Your task to perform on an android device: Go to CNN.com Image 0: 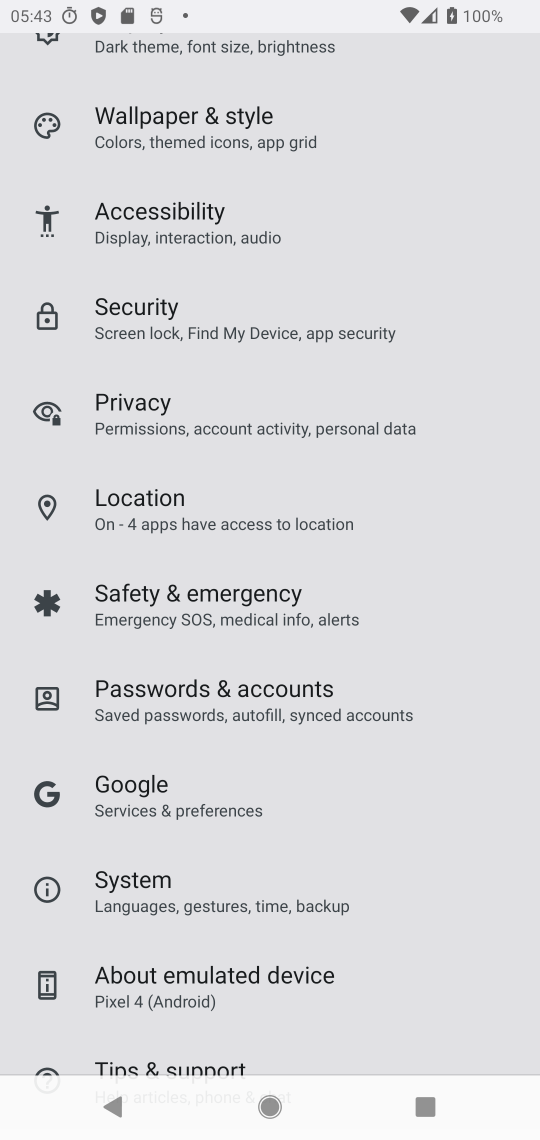
Step 0: press home button
Your task to perform on an android device: Go to CNN.com Image 1: 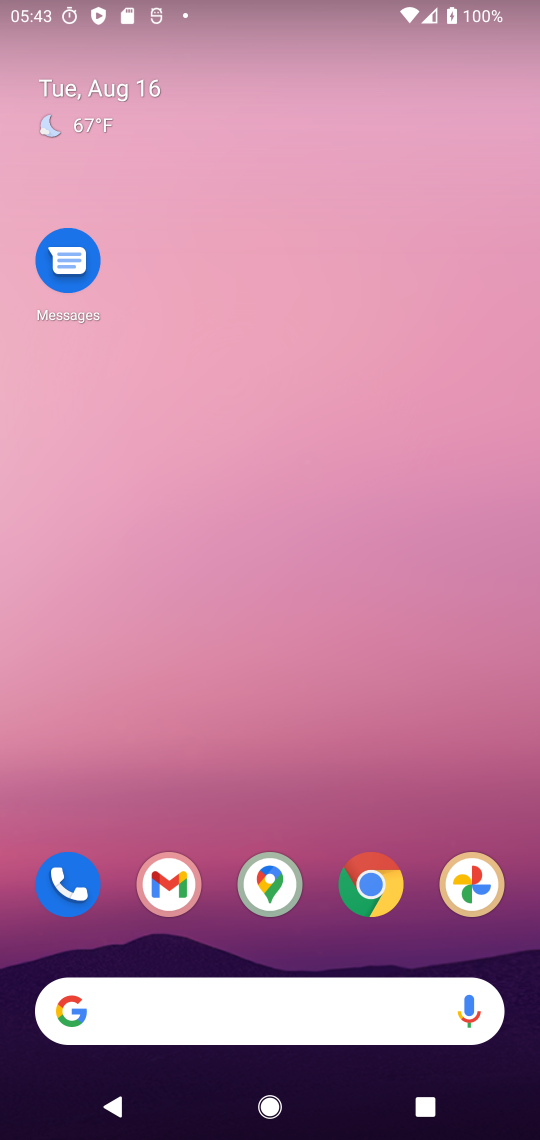
Step 1: click (145, 1009)
Your task to perform on an android device: Go to CNN.com Image 2: 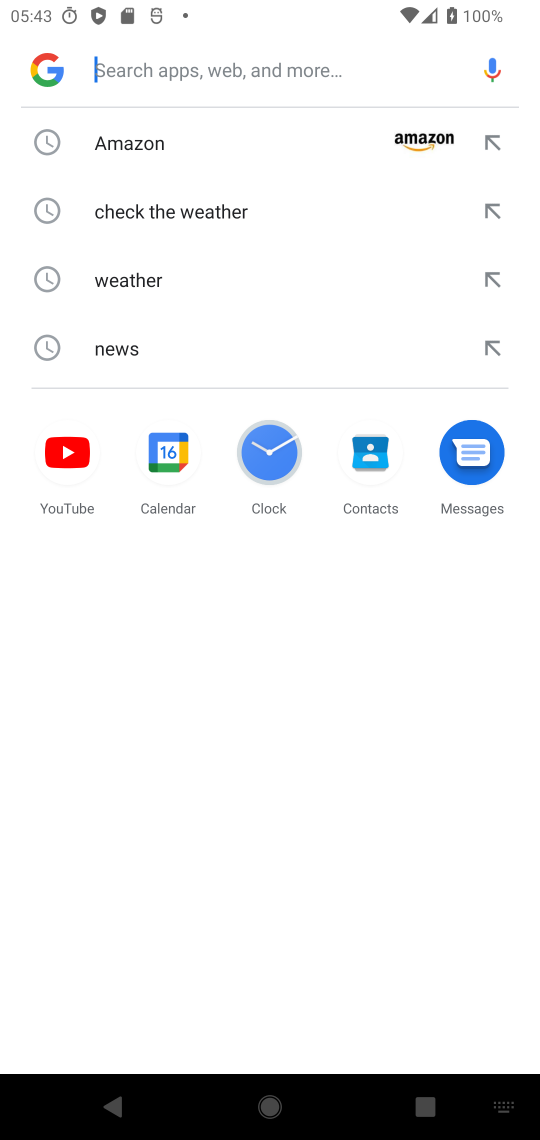
Step 2: type "CNN.com"
Your task to perform on an android device: Go to CNN.com Image 3: 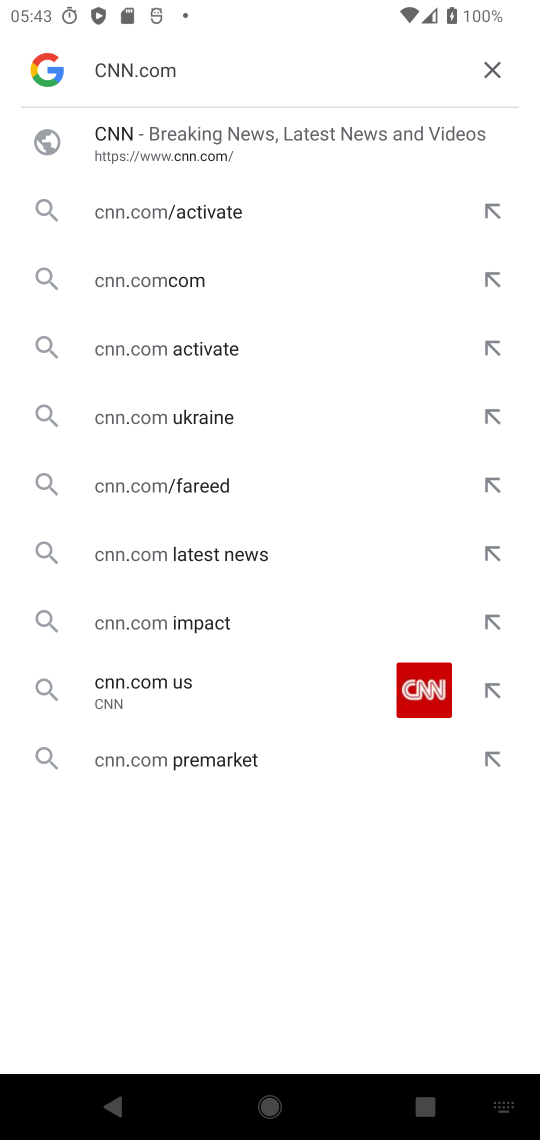
Step 3: type ""
Your task to perform on an android device: Go to CNN.com Image 4: 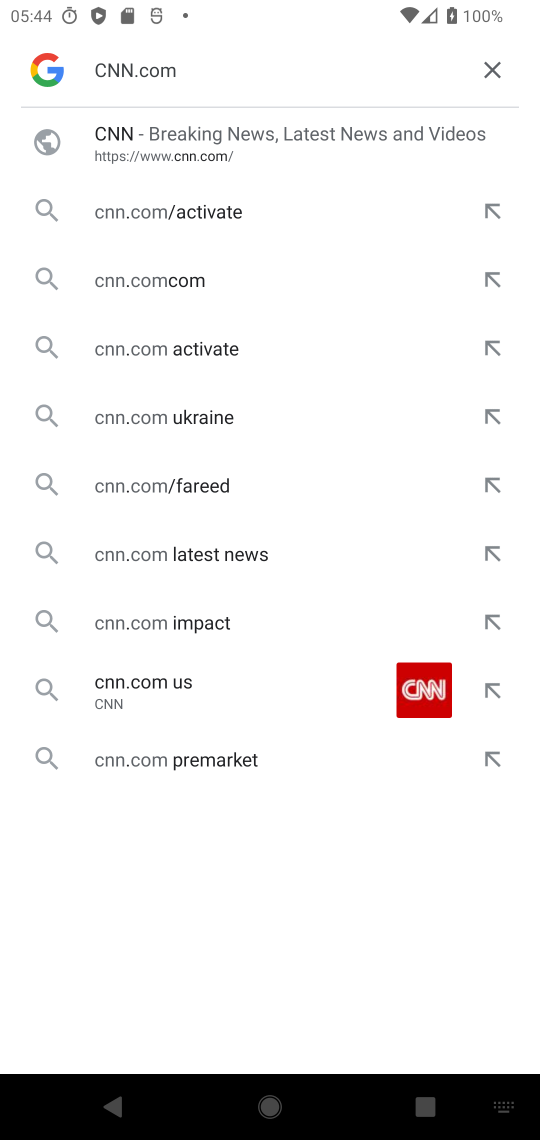
Step 4: task complete